Your task to perform on an android device: change notifications settings Image 0: 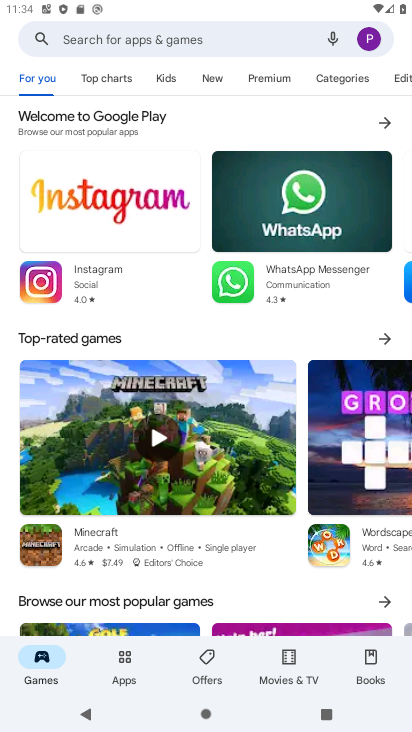
Step 0: drag from (326, 14) to (400, 548)
Your task to perform on an android device: change notifications settings Image 1: 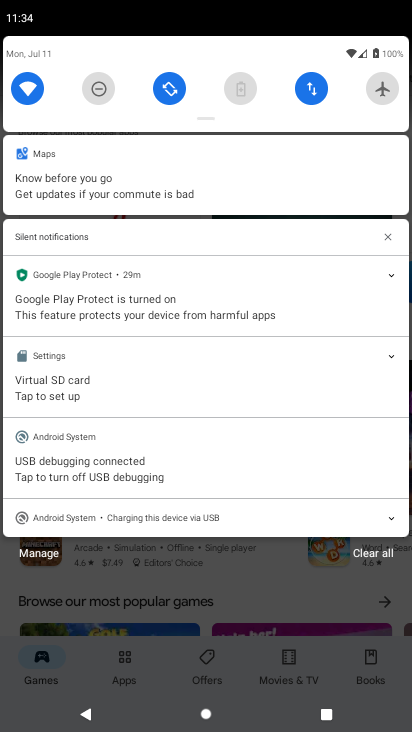
Step 1: drag from (185, 63) to (91, 693)
Your task to perform on an android device: change notifications settings Image 2: 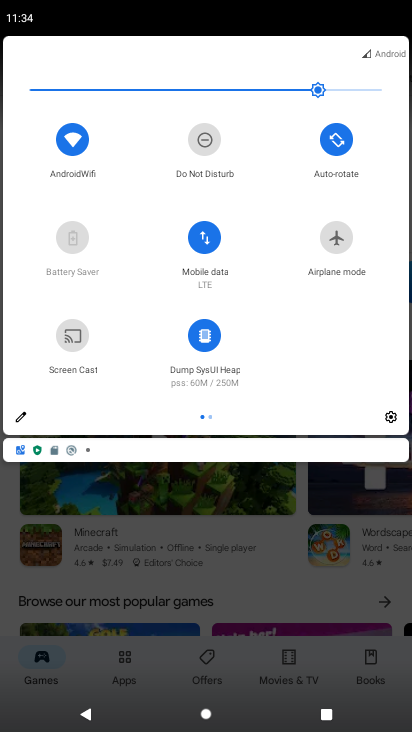
Step 2: click (384, 410)
Your task to perform on an android device: change notifications settings Image 3: 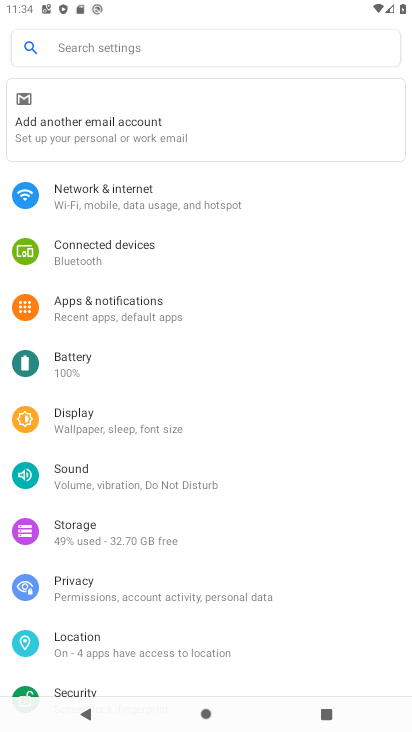
Step 3: click (198, 295)
Your task to perform on an android device: change notifications settings Image 4: 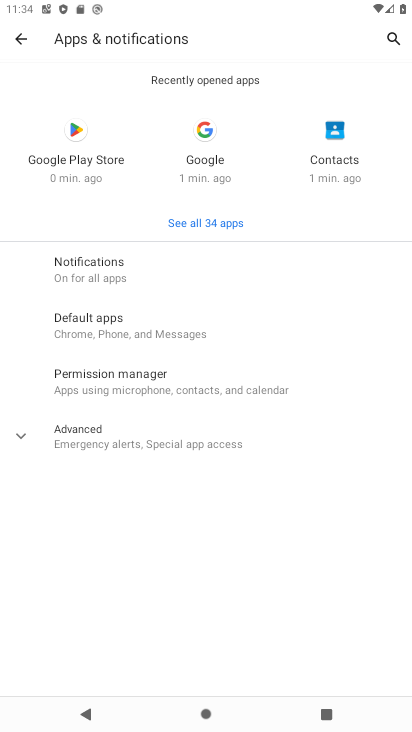
Step 4: click (190, 446)
Your task to perform on an android device: change notifications settings Image 5: 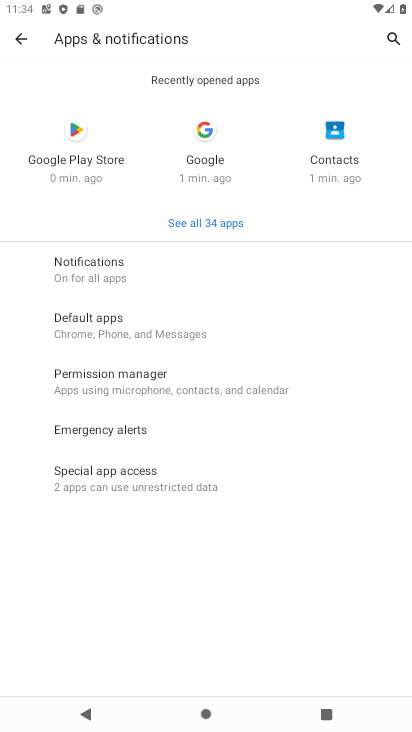
Step 5: click (148, 260)
Your task to perform on an android device: change notifications settings Image 6: 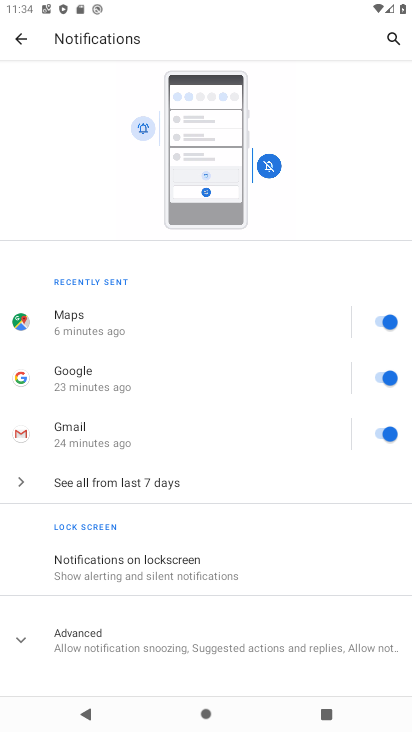
Step 6: click (232, 629)
Your task to perform on an android device: change notifications settings Image 7: 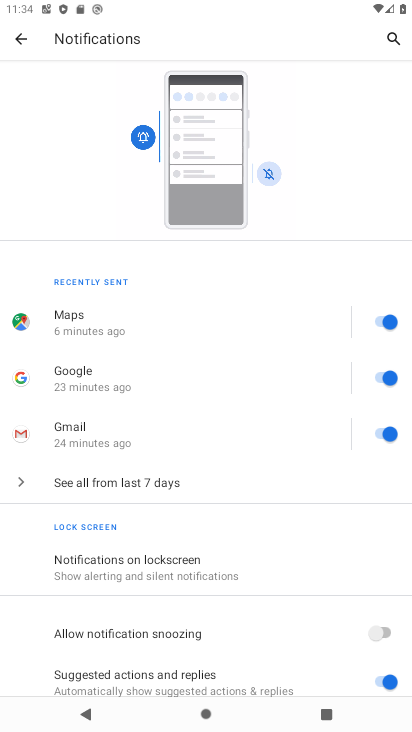
Step 7: click (232, 629)
Your task to perform on an android device: change notifications settings Image 8: 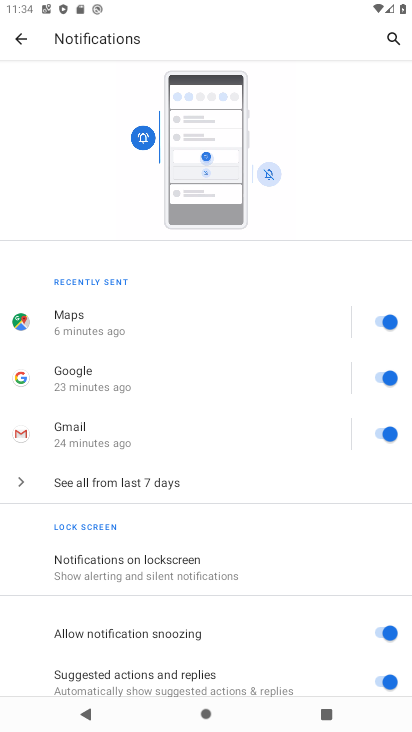
Step 8: click (383, 679)
Your task to perform on an android device: change notifications settings Image 9: 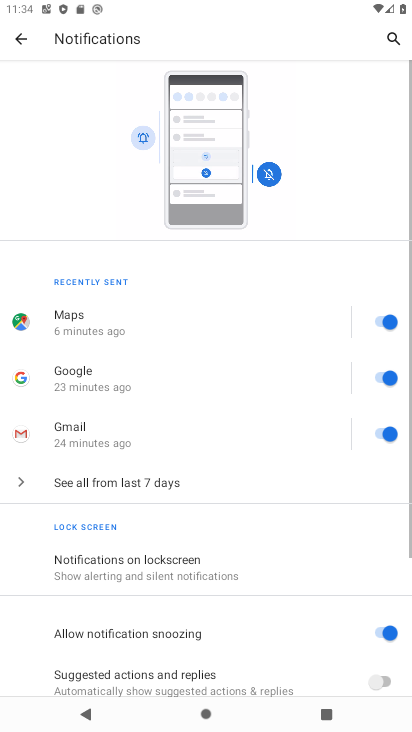
Step 9: task complete